Your task to perform on an android device: create a new album in the google photos Image 0: 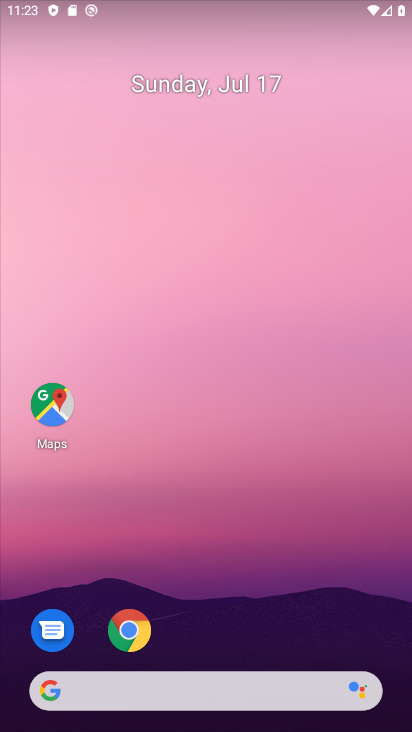
Step 0: drag from (220, 655) to (223, 201)
Your task to perform on an android device: create a new album in the google photos Image 1: 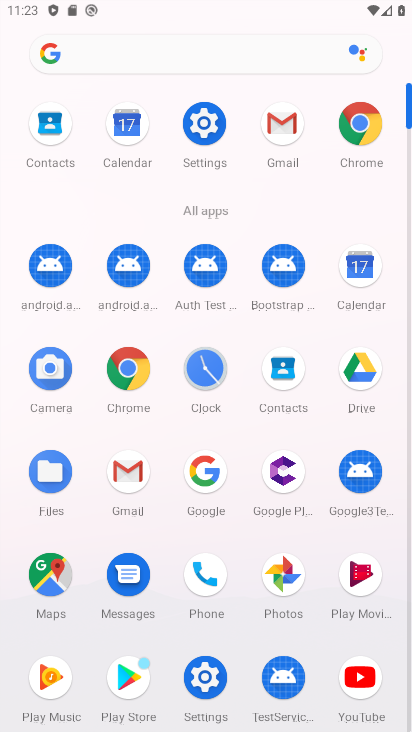
Step 1: click (287, 586)
Your task to perform on an android device: create a new album in the google photos Image 2: 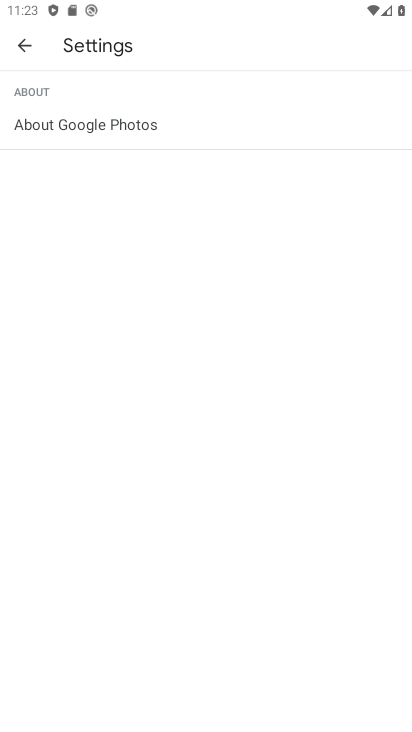
Step 2: click (30, 44)
Your task to perform on an android device: create a new album in the google photos Image 3: 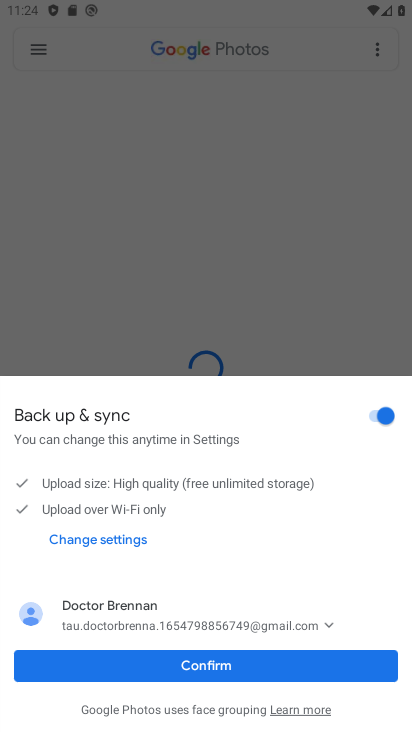
Step 3: click (235, 661)
Your task to perform on an android device: create a new album in the google photos Image 4: 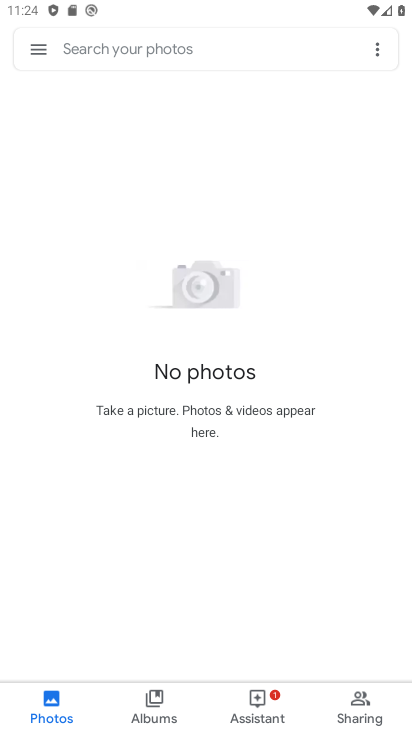
Step 4: click (150, 713)
Your task to perform on an android device: create a new album in the google photos Image 5: 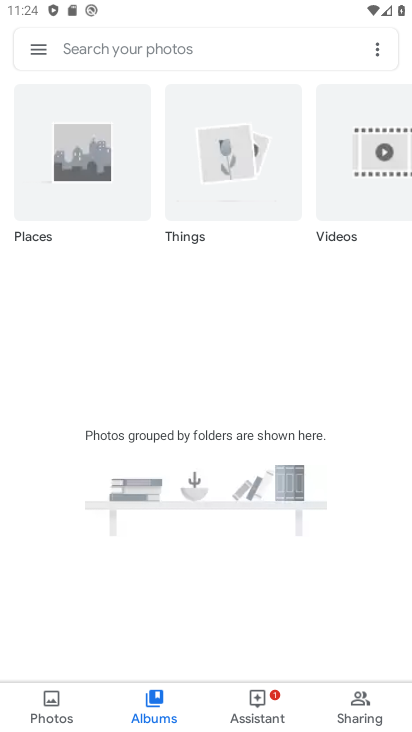
Step 5: task complete